Your task to perform on an android device: Open battery settings Image 0: 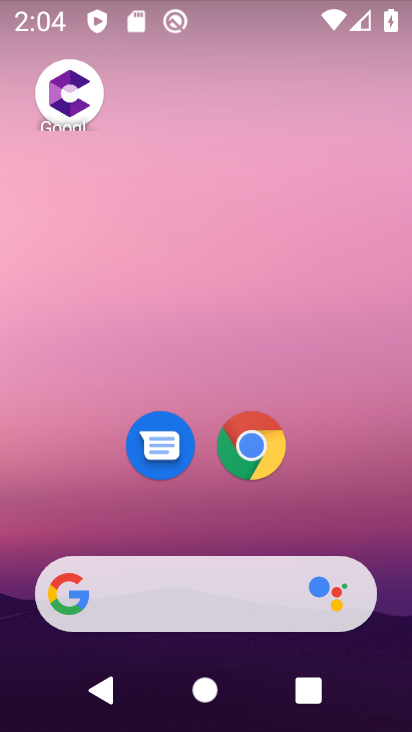
Step 0: drag from (195, 518) to (300, 15)
Your task to perform on an android device: Open battery settings Image 1: 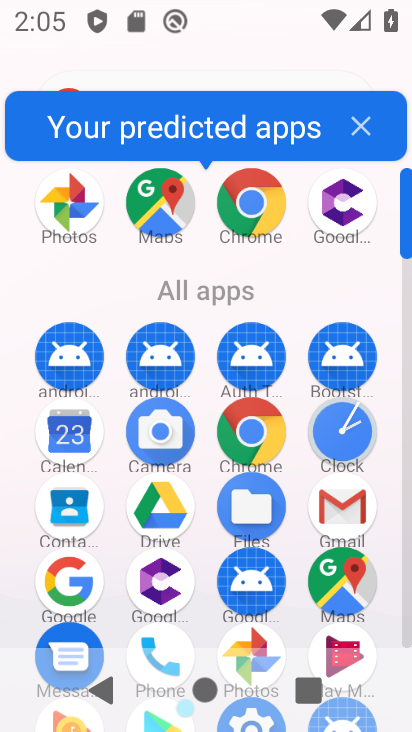
Step 1: drag from (286, 608) to (325, 17)
Your task to perform on an android device: Open battery settings Image 2: 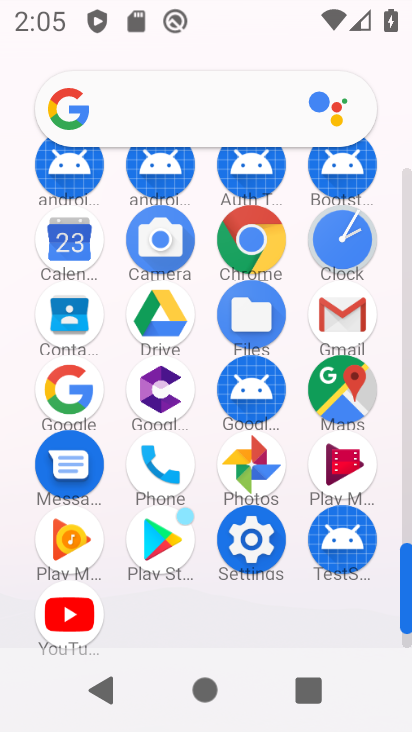
Step 2: click (231, 550)
Your task to perform on an android device: Open battery settings Image 3: 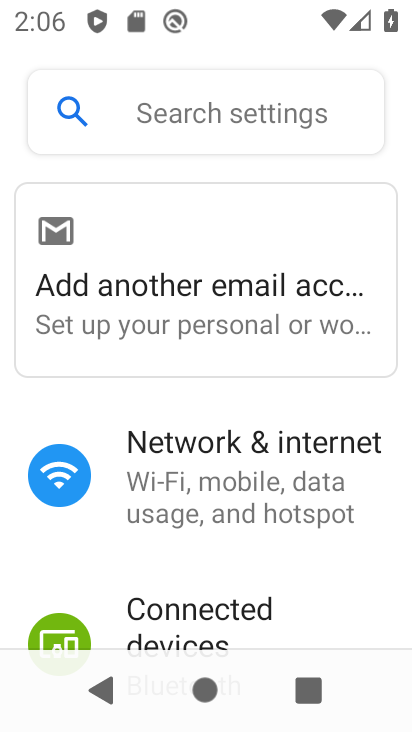
Step 3: drag from (100, 552) to (195, 133)
Your task to perform on an android device: Open battery settings Image 4: 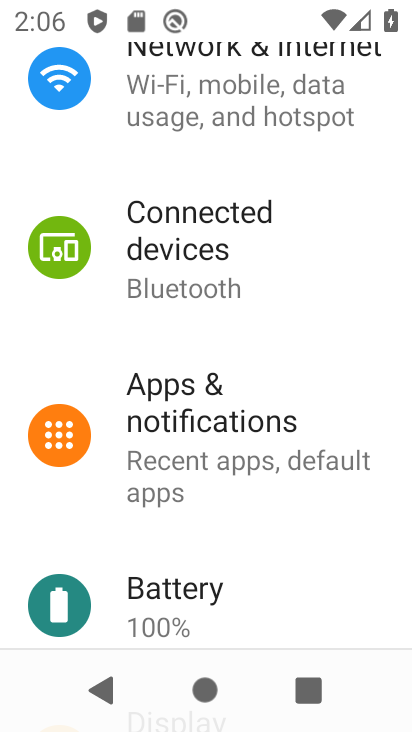
Step 4: click (135, 592)
Your task to perform on an android device: Open battery settings Image 5: 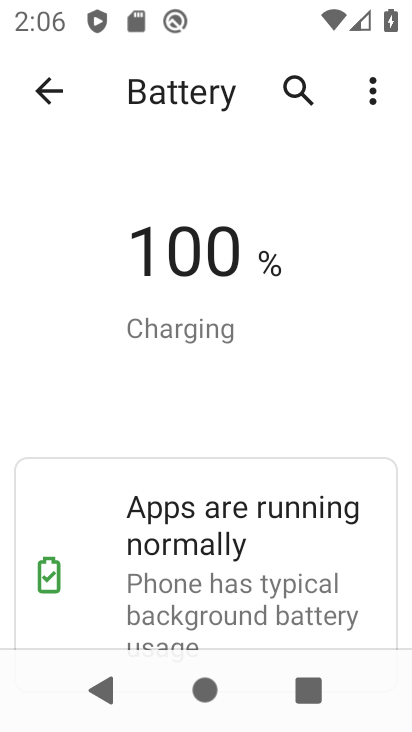
Step 5: click (384, 83)
Your task to perform on an android device: Open battery settings Image 6: 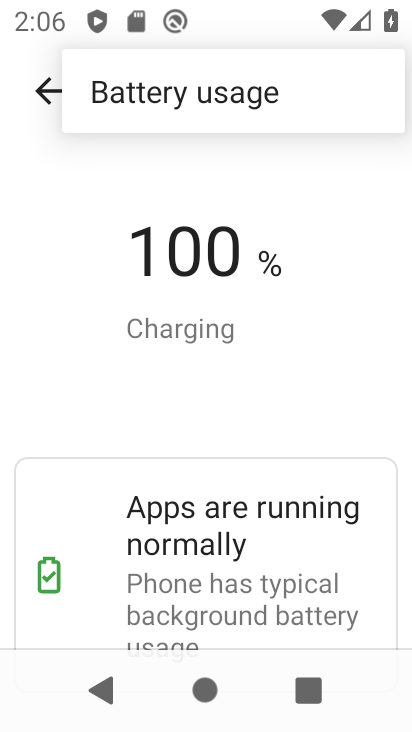
Step 6: click (204, 92)
Your task to perform on an android device: Open battery settings Image 7: 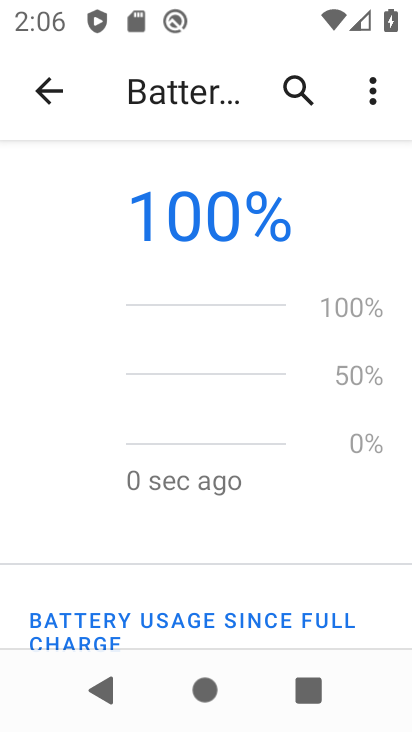
Step 7: task complete